Your task to perform on an android device: Search for razer thresher on bestbuy, select the first entry, and add it to the cart. Image 0: 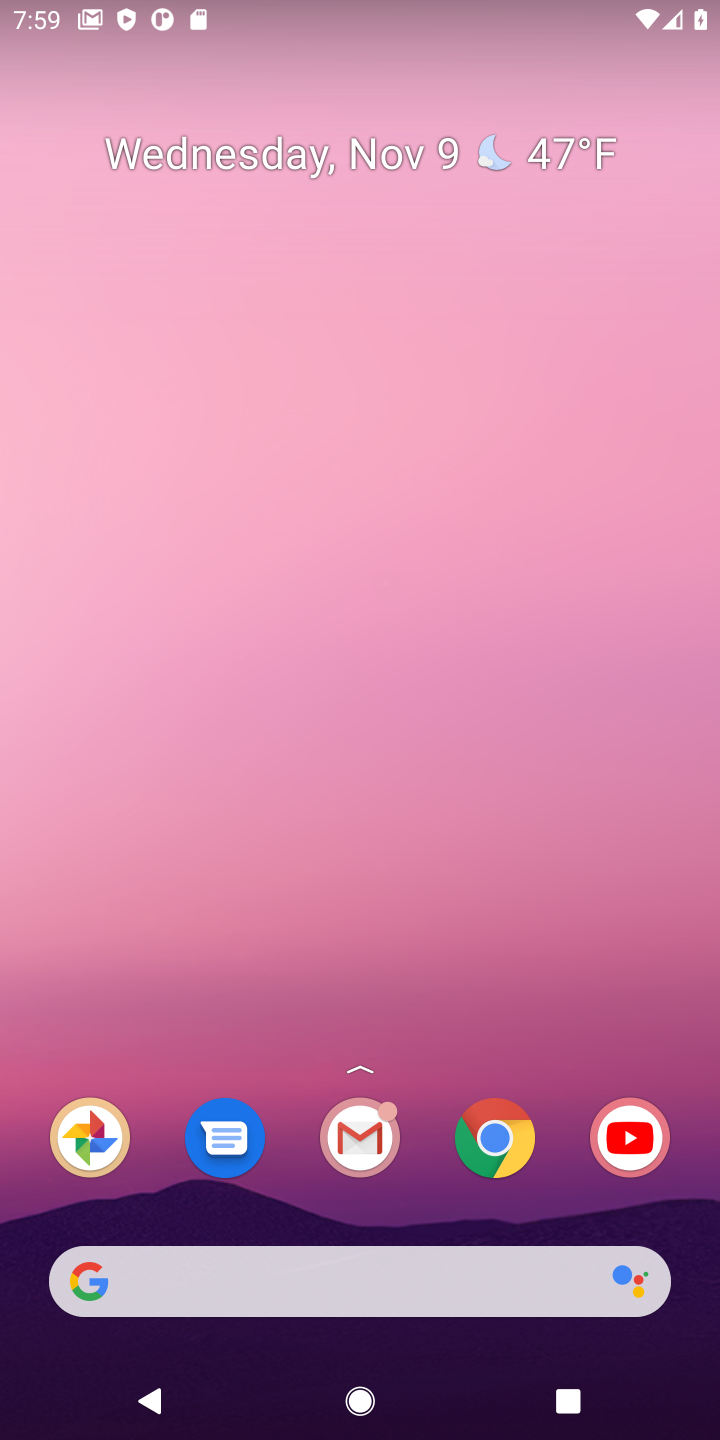
Step 0: drag from (437, 1214) to (385, 198)
Your task to perform on an android device: Search for razer thresher on bestbuy, select the first entry, and add it to the cart. Image 1: 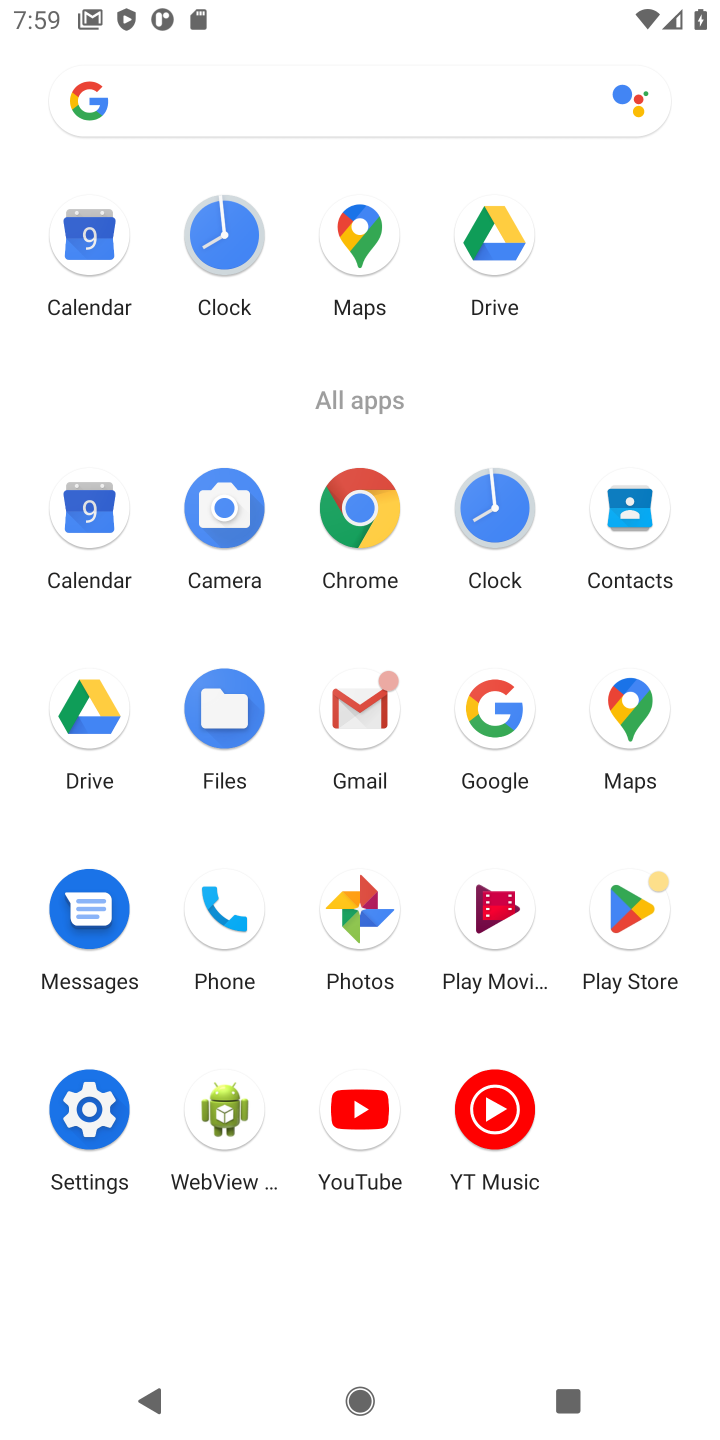
Step 1: click (361, 517)
Your task to perform on an android device: Search for razer thresher on bestbuy, select the first entry, and add it to the cart. Image 2: 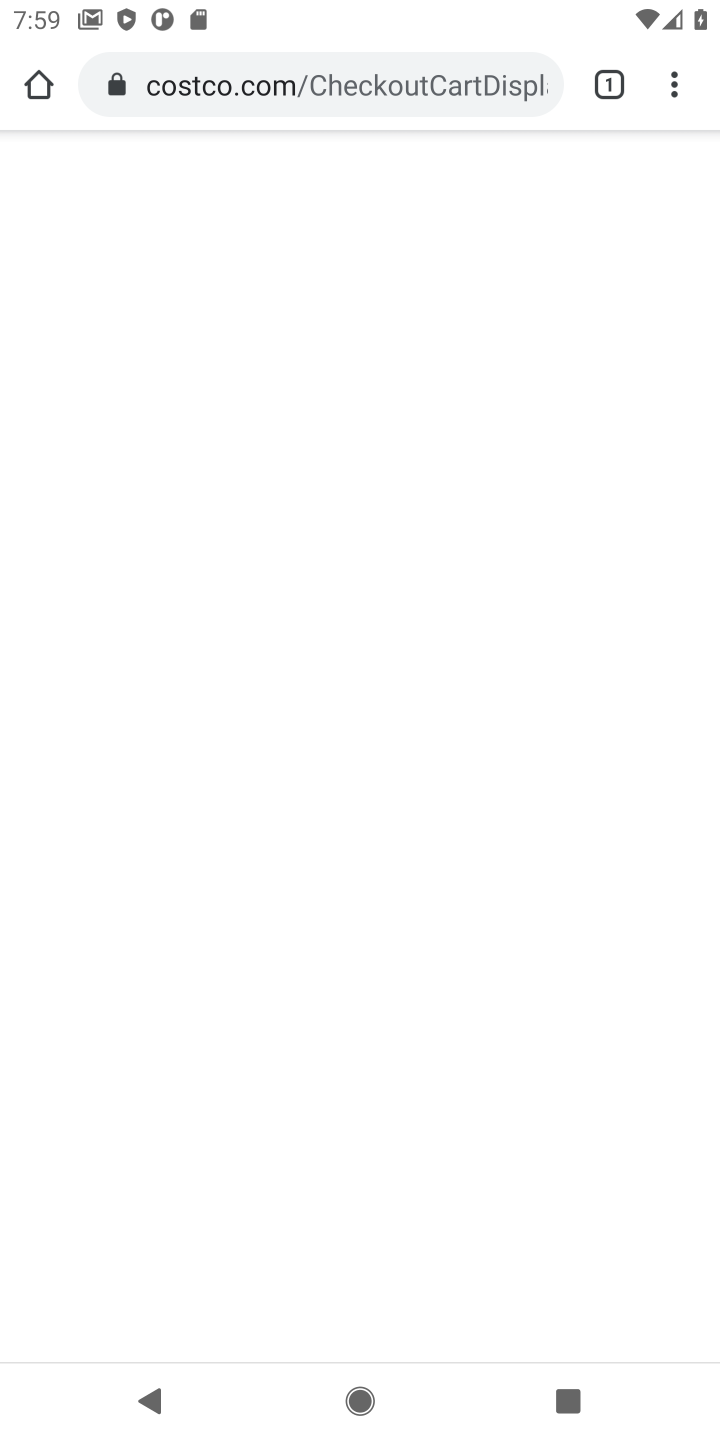
Step 2: click (418, 87)
Your task to perform on an android device: Search for razer thresher on bestbuy, select the first entry, and add it to the cart. Image 3: 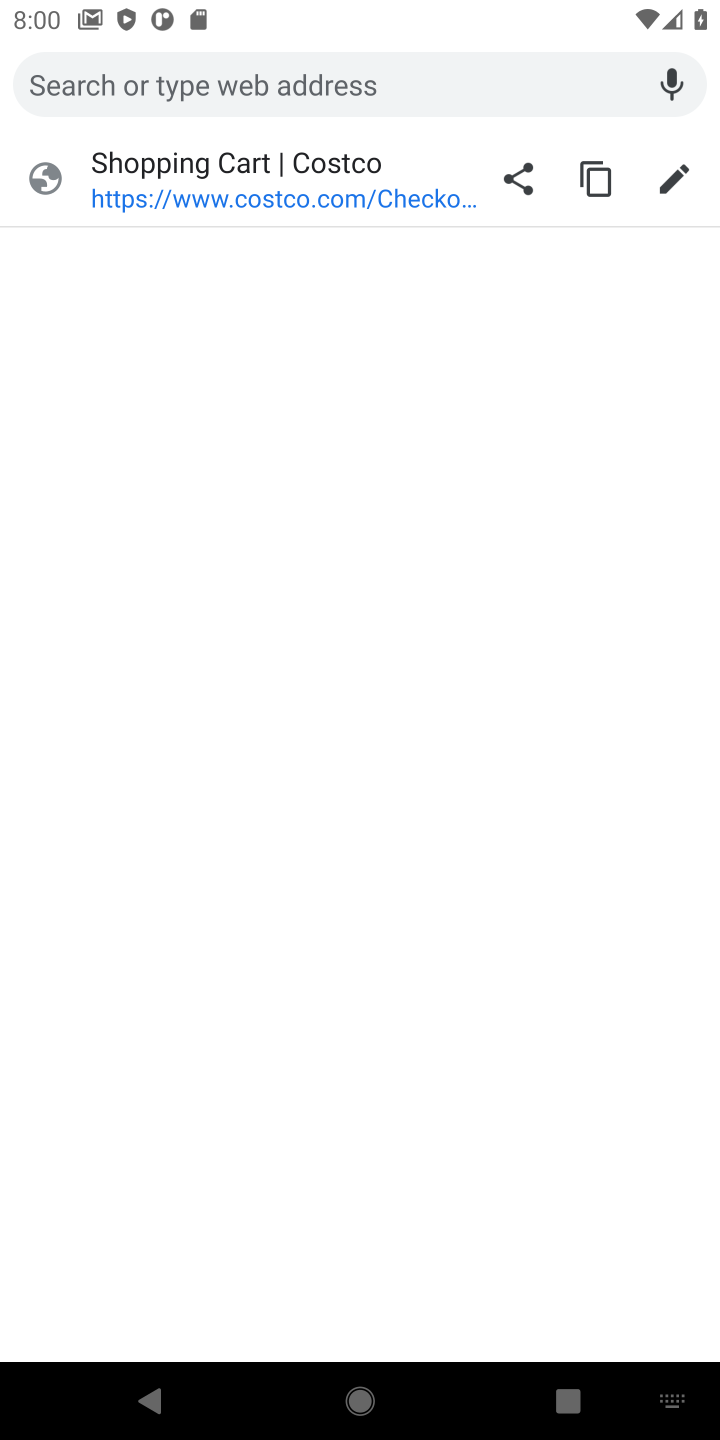
Step 3: type "bestbuy.com"
Your task to perform on an android device: Search for razer thresher on bestbuy, select the first entry, and add it to the cart. Image 4: 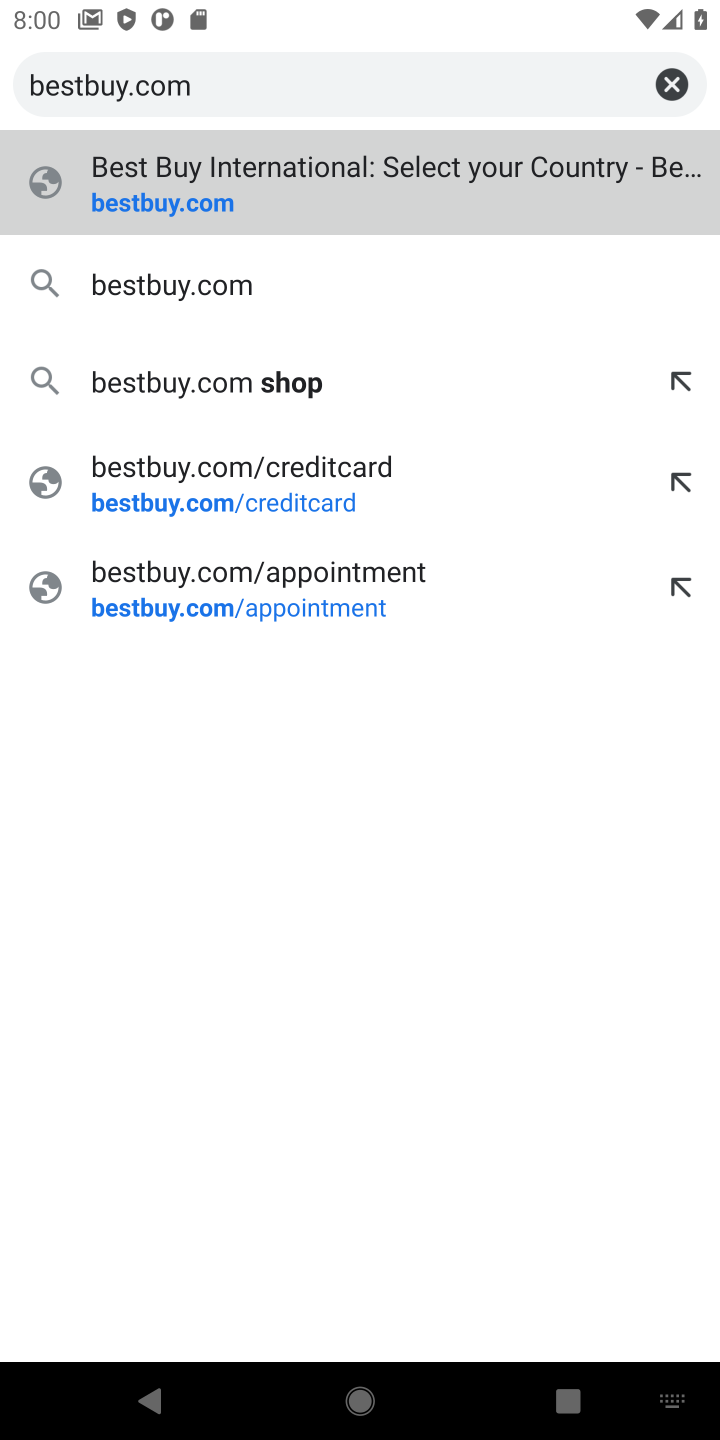
Step 4: press enter
Your task to perform on an android device: Search for razer thresher on bestbuy, select the first entry, and add it to the cart. Image 5: 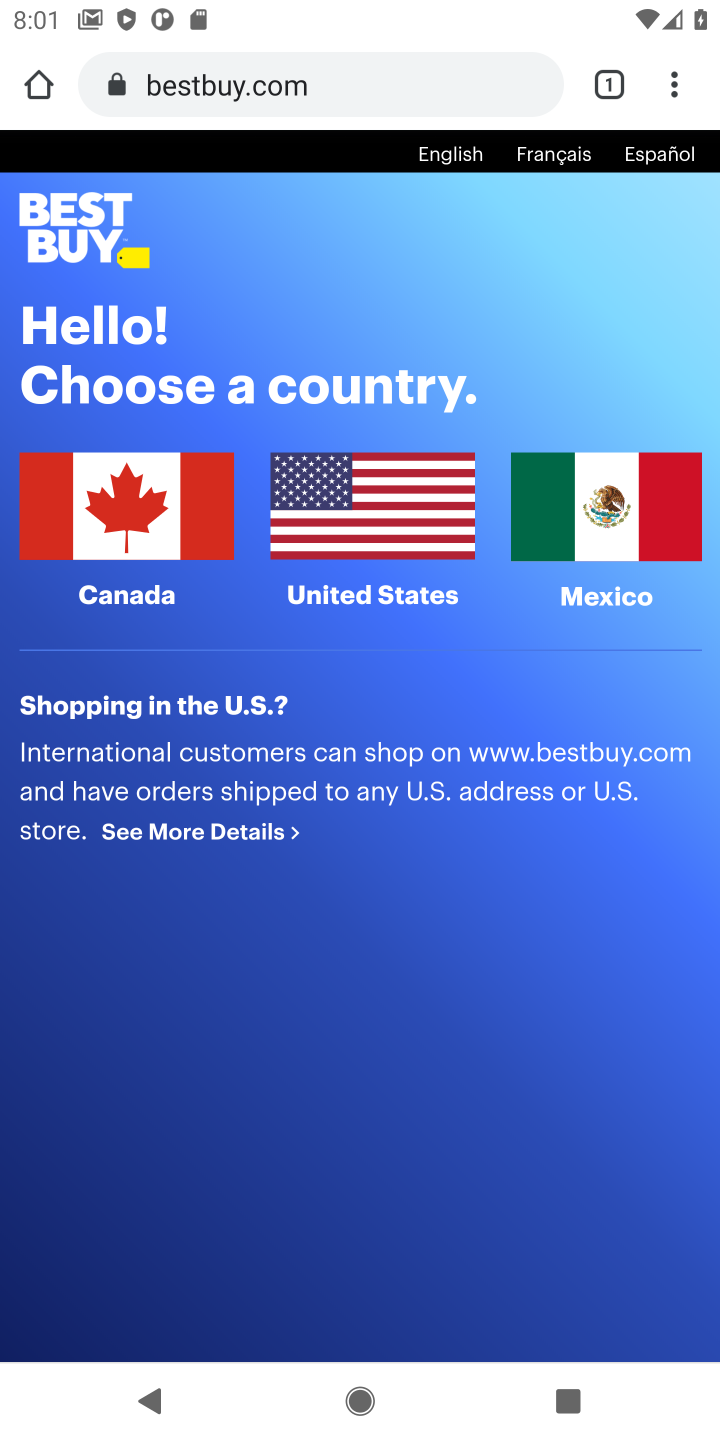
Step 5: click (103, 491)
Your task to perform on an android device: Search for razer thresher on bestbuy, select the first entry, and add it to the cart. Image 6: 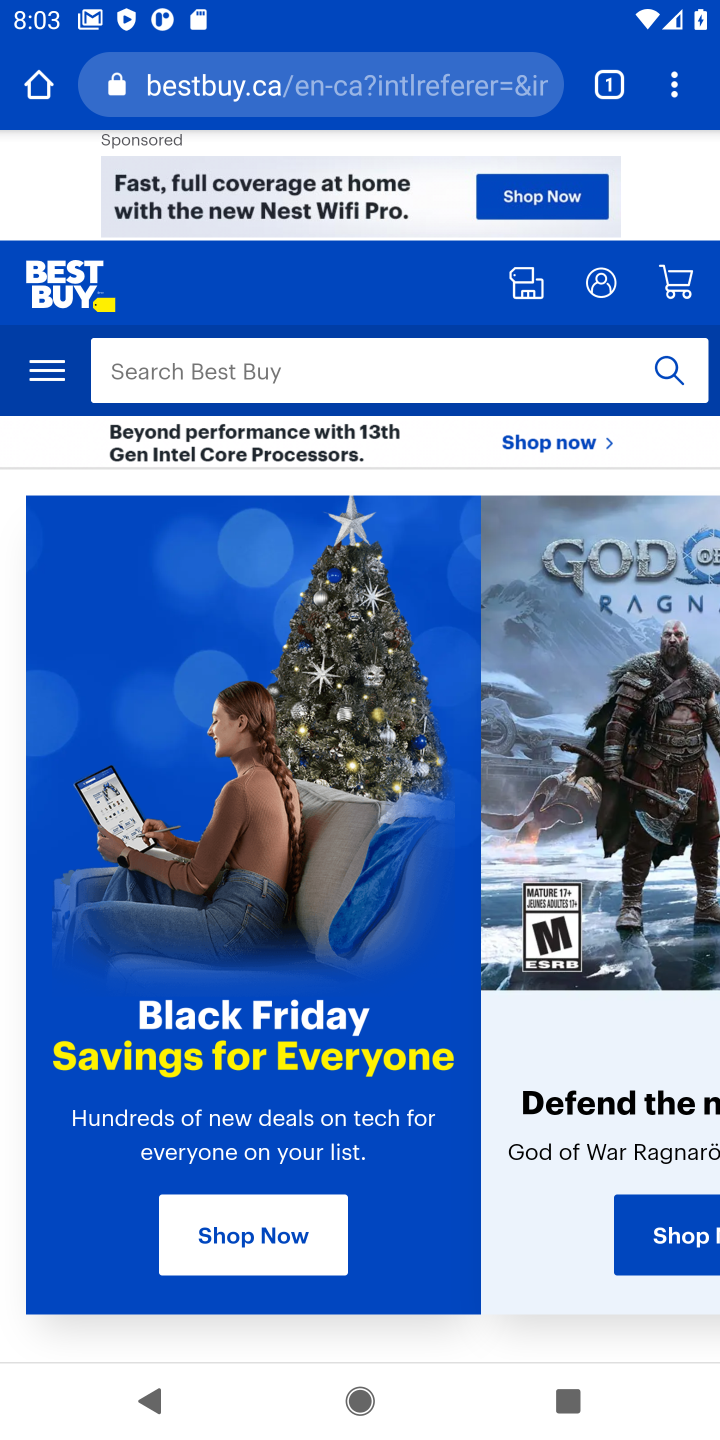
Step 6: click (344, 372)
Your task to perform on an android device: Search for razer thresher on bestbuy, select the first entry, and add it to the cart. Image 7: 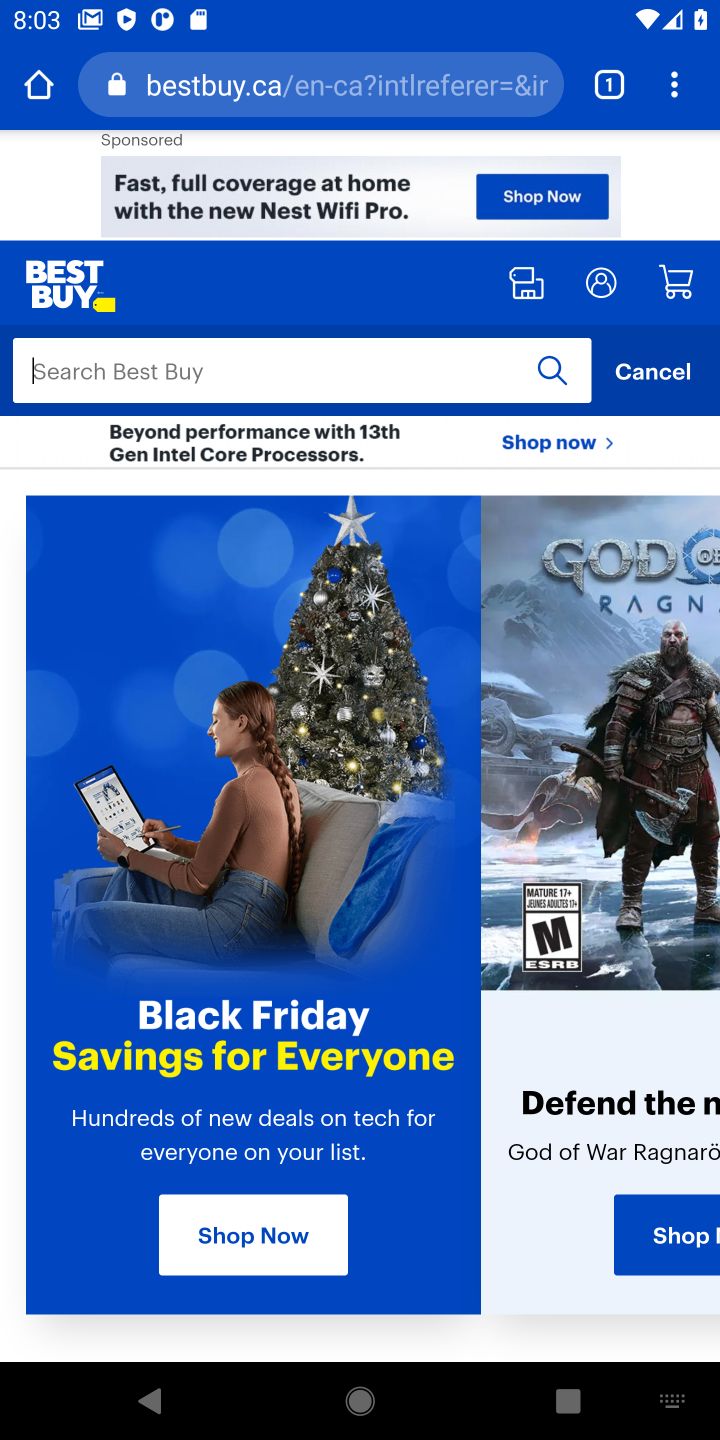
Step 7: type "razer thresher"
Your task to perform on an android device: Search for razer thresher on bestbuy, select the first entry, and add it to the cart. Image 8: 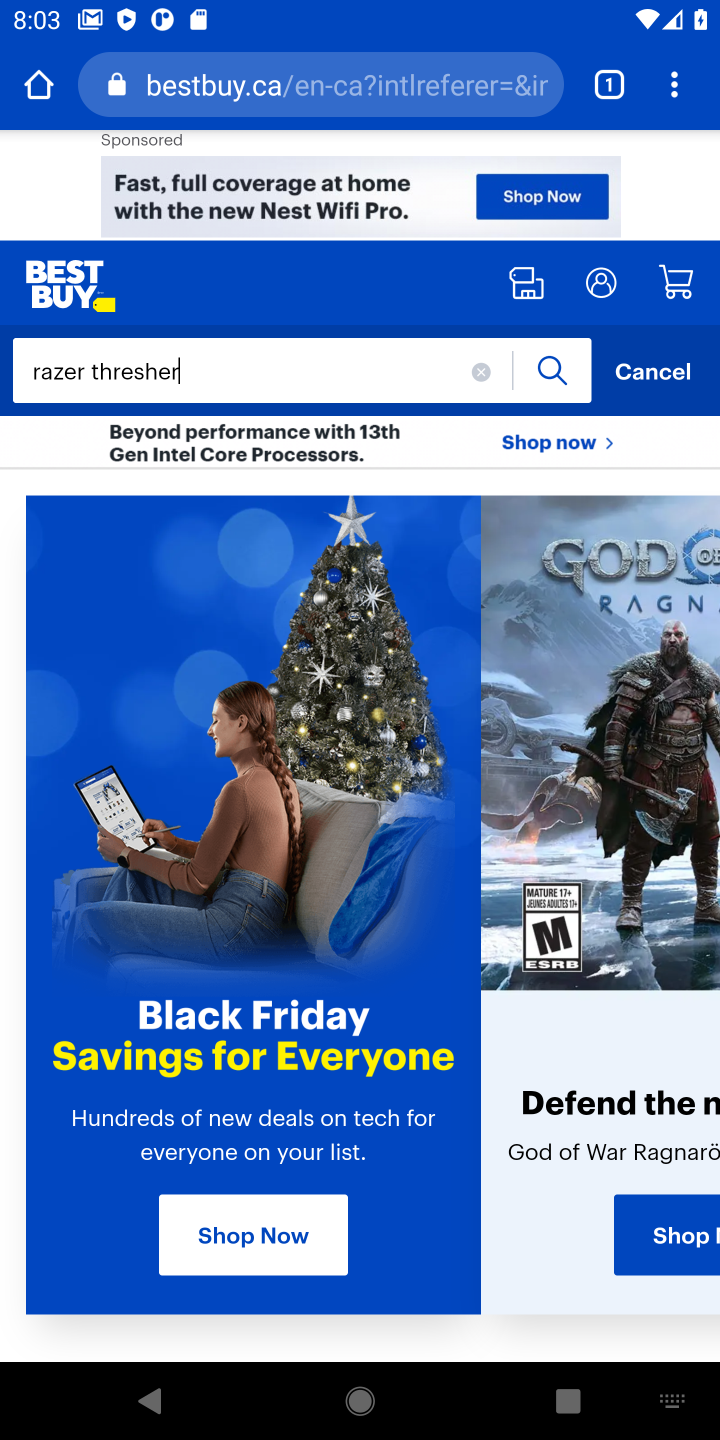
Step 8: press enter
Your task to perform on an android device: Search for razer thresher on bestbuy, select the first entry, and add it to the cart. Image 9: 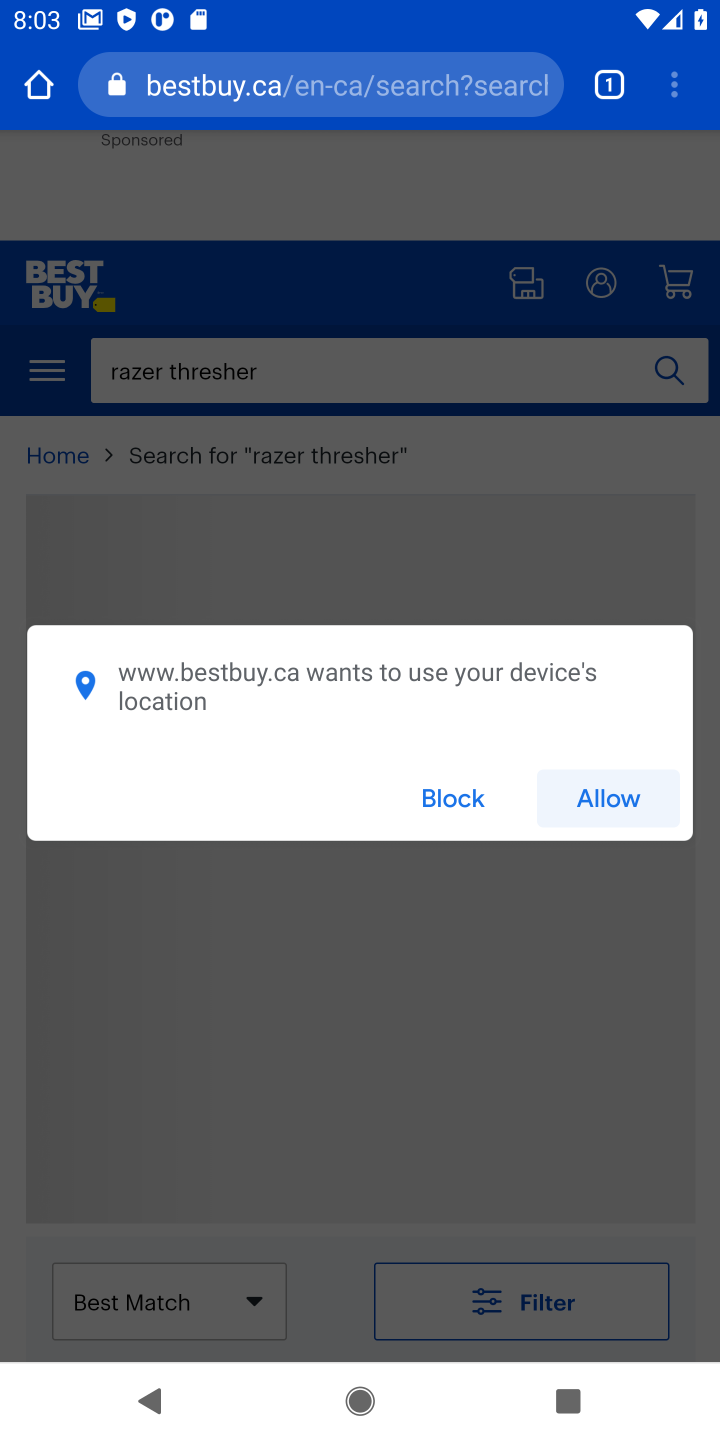
Step 9: click (460, 799)
Your task to perform on an android device: Search for razer thresher on bestbuy, select the first entry, and add it to the cart. Image 10: 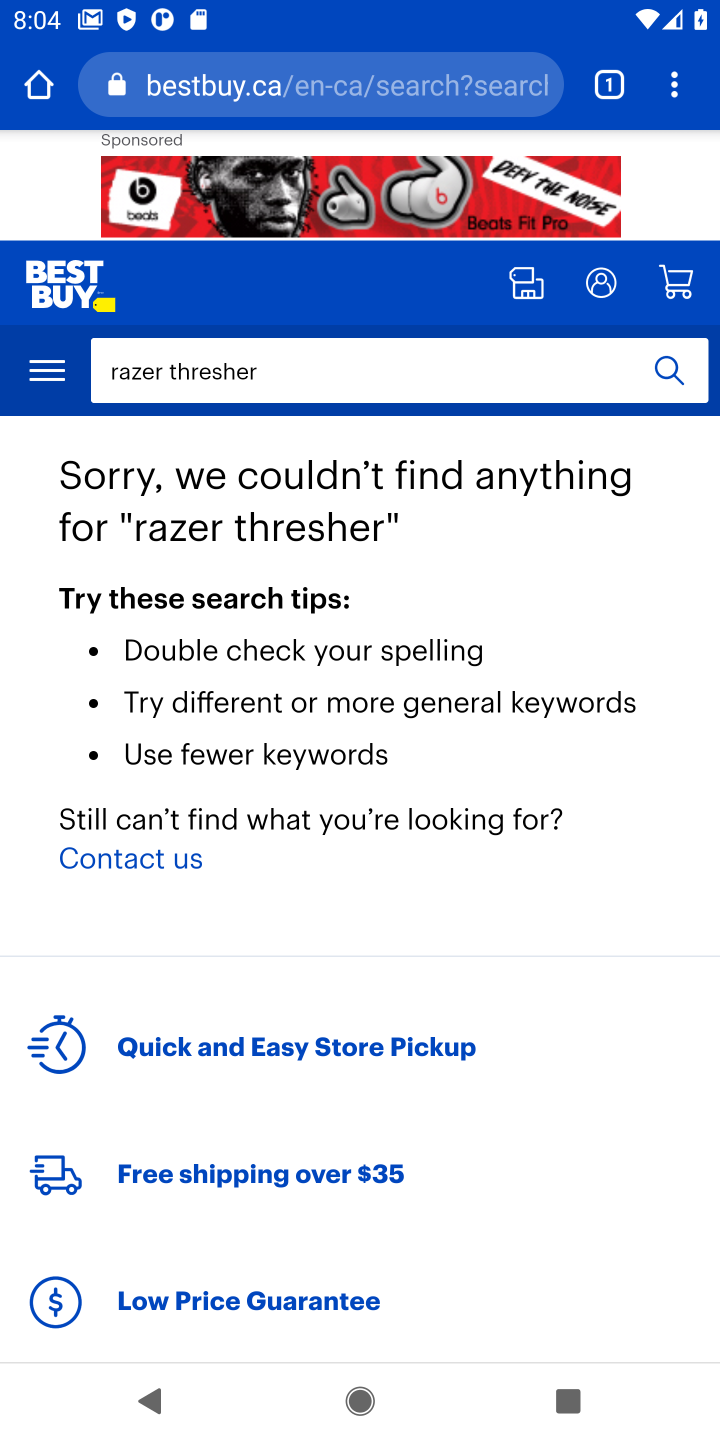
Step 10: task complete